Your task to perform on an android device: Open Google Image 0: 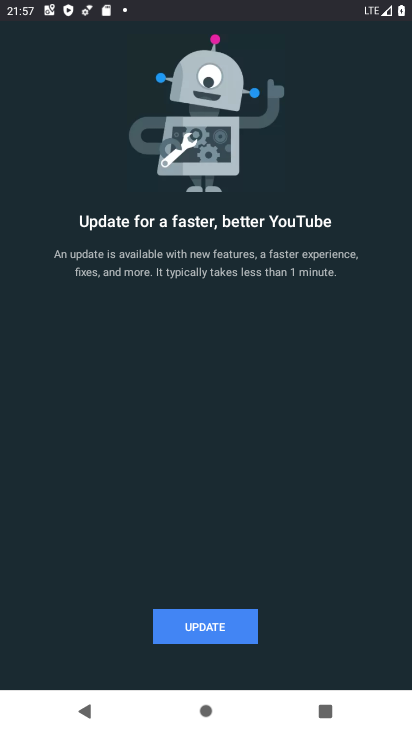
Step 0: press back button
Your task to perform on an android device: Open Google Image 1: 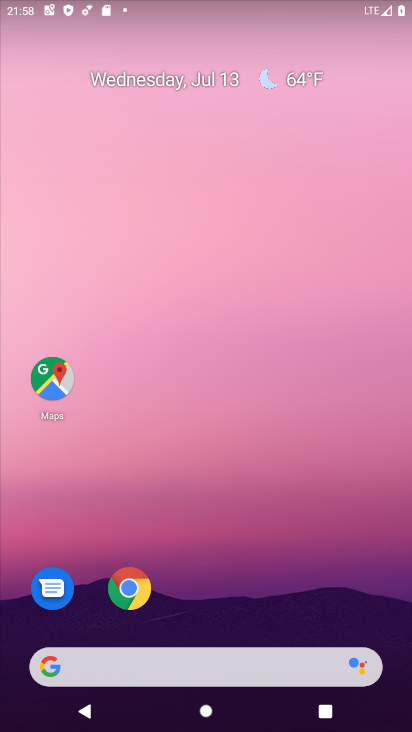
Step 1: drag from (260, 449) to (301, 0)
Your task to perform on an android device: Open Google Image 2: 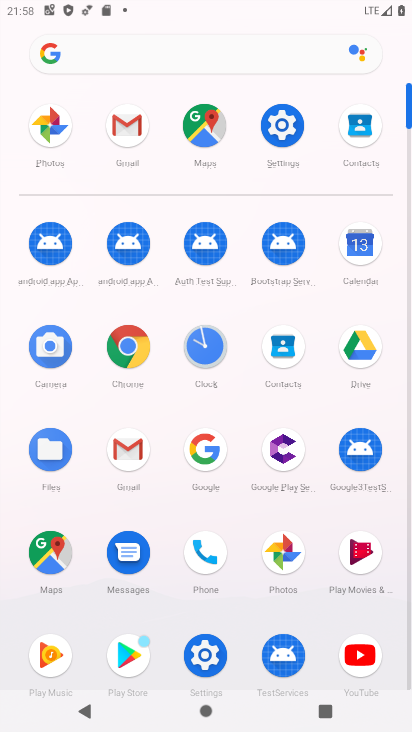
Step 2: click (209, 449)
Your task to perform on an android device: Open Google Image 3: 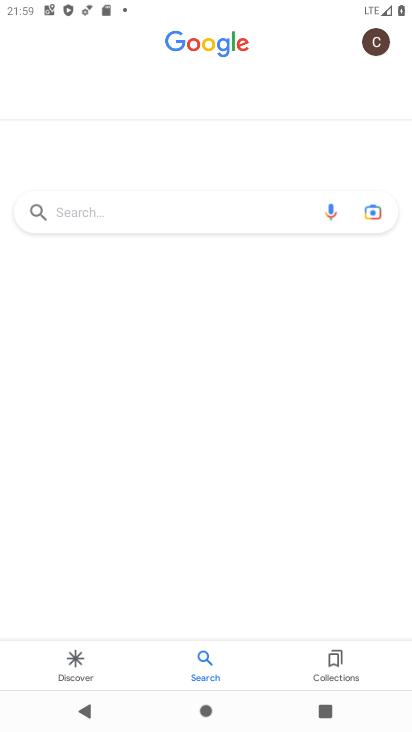
Step 3: task complete